Your task to perform on an android device: move a message to another label in the gmail app Image 0: 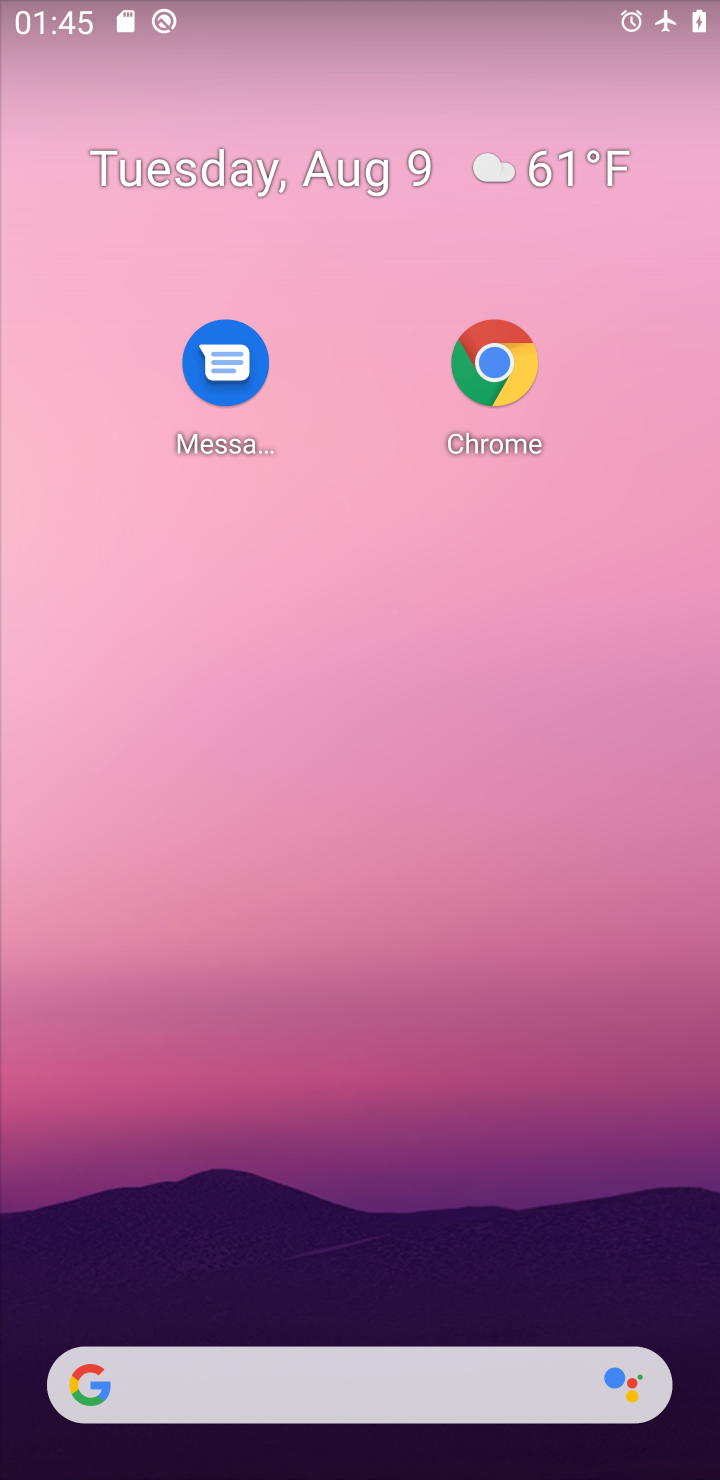
Step 0: drag from (415, 1146) to (407, 437)
Your task to perform on an android device: move a message to another label in the gmail app Image 1: 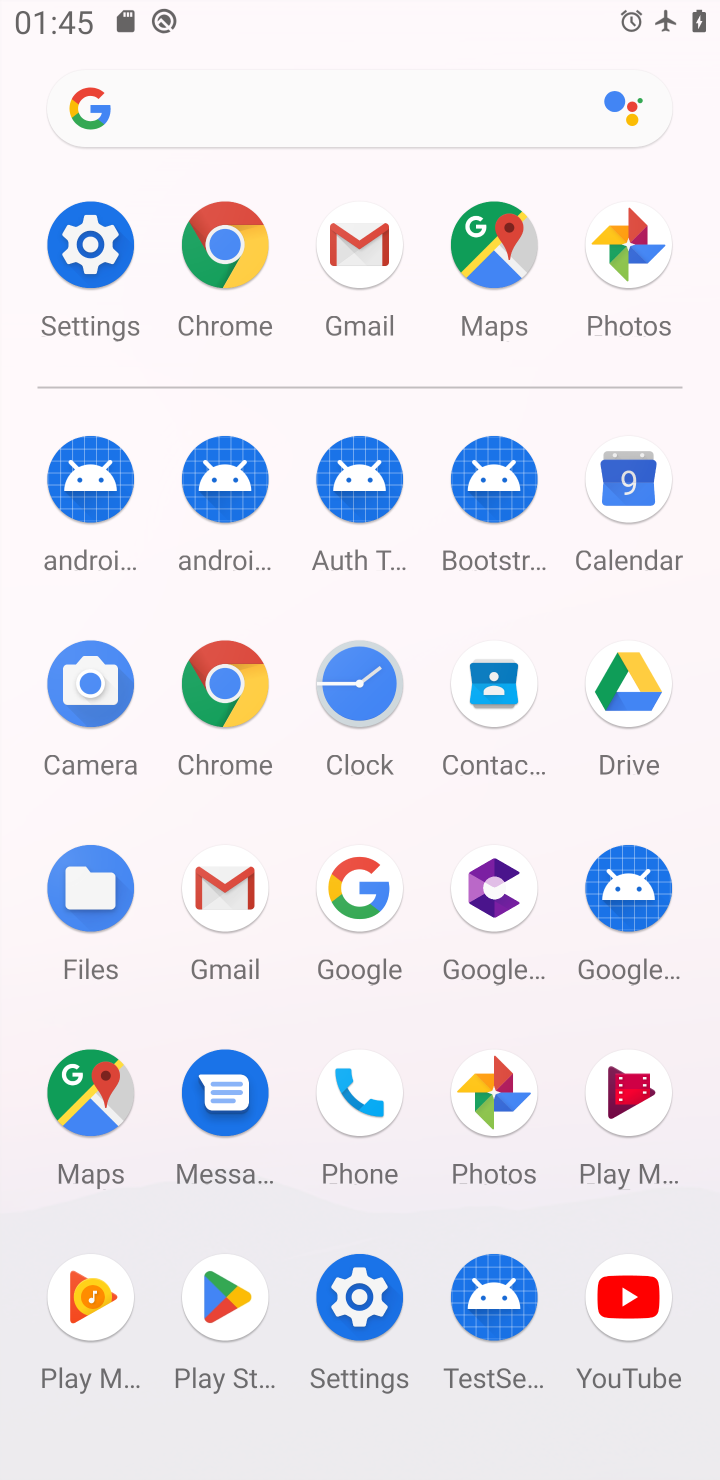
Step 1: click (208, 881)
Your task to perform on an android device: move a message to another label in the gmail app Image 2: 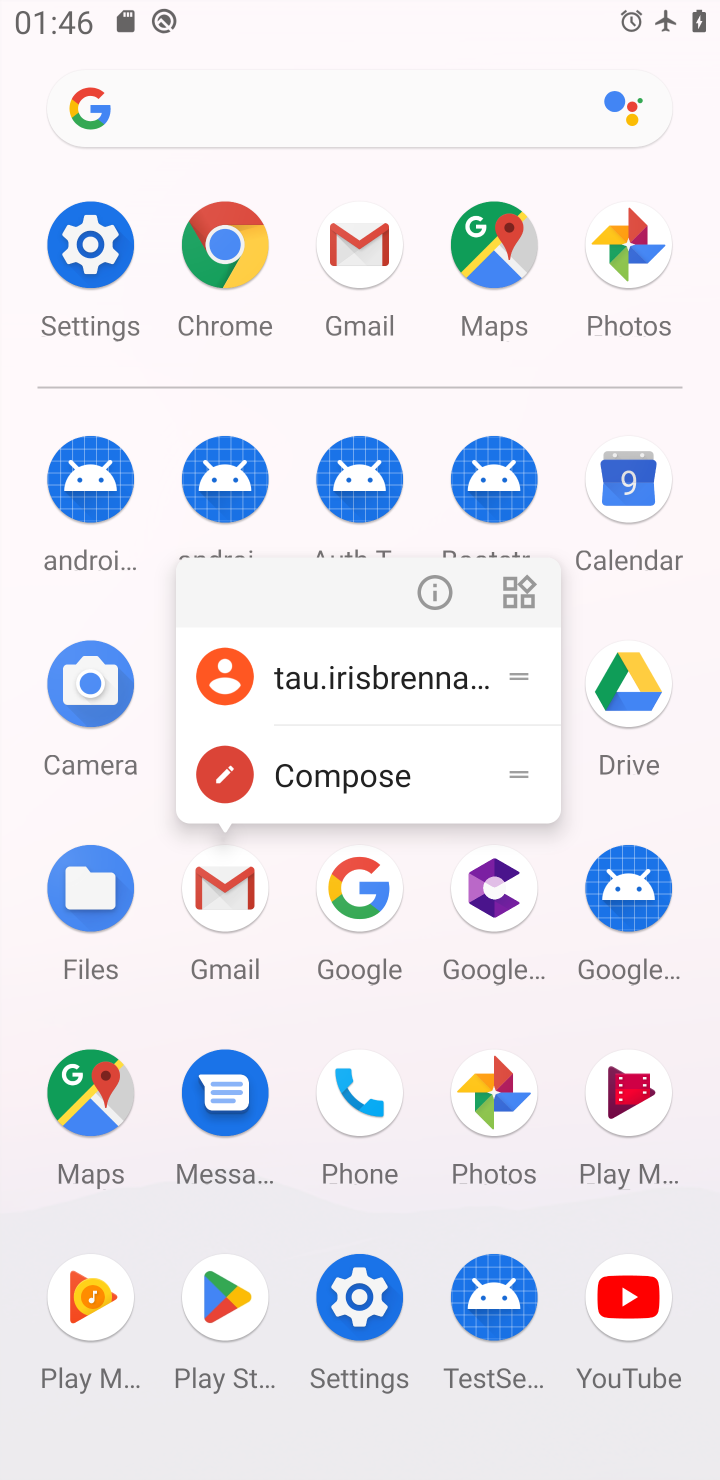
Step 2: click (216, 914)
Your task to perform on an android device: move a message to another label in the gmail app Image 3: 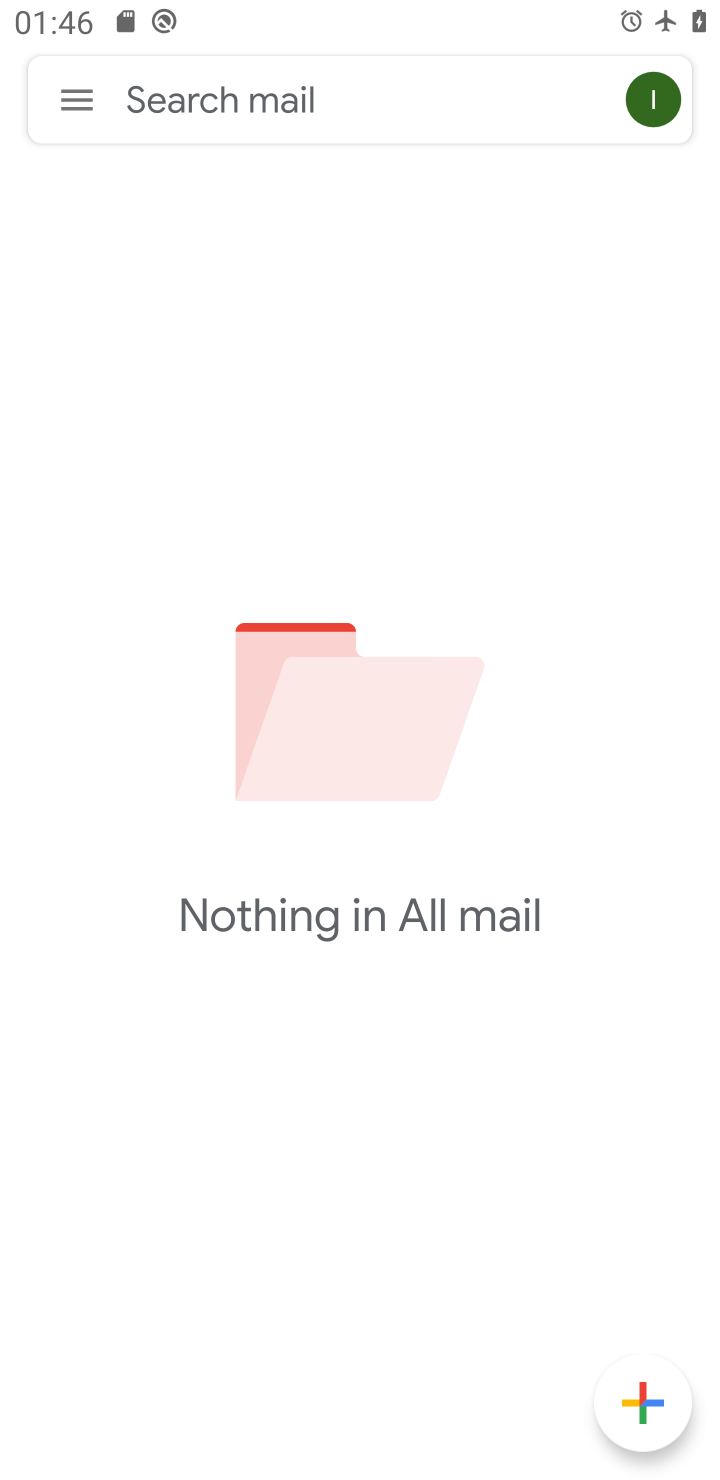
Step 3: task complete